Your task to perform on an android device: Open Youtube and go to the subscriptions tab Image 0: 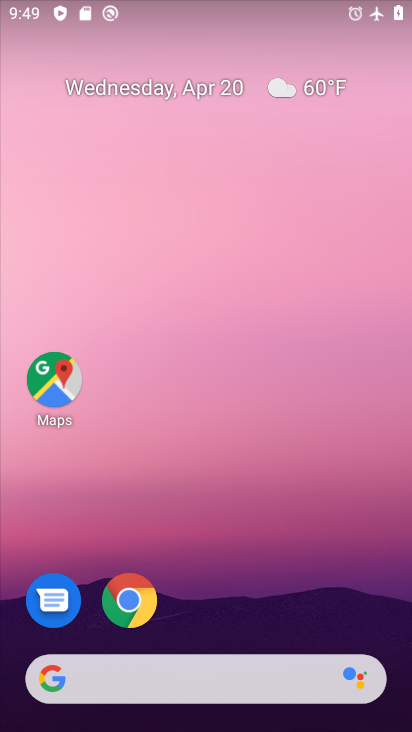
Step 0: drag from (244, 653) to (292, 22)
Your task to perform on an android device: Open Youtube and go to the subscriptions tab Image 1: 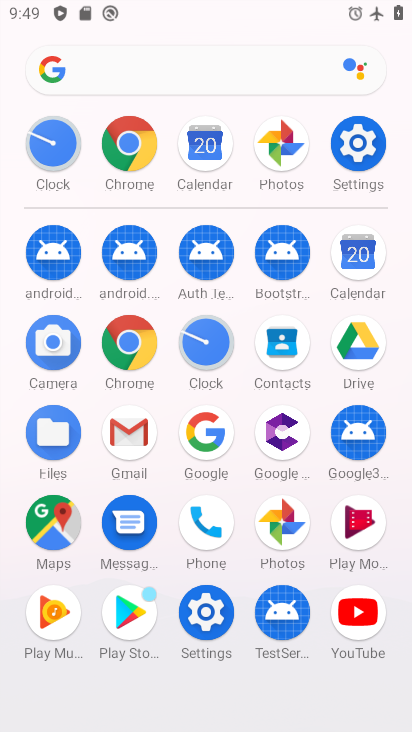
Step 1: click (356, 616)
Your task to perform on an android device: Open Youtube and go to the subscriptions tab Image 2: 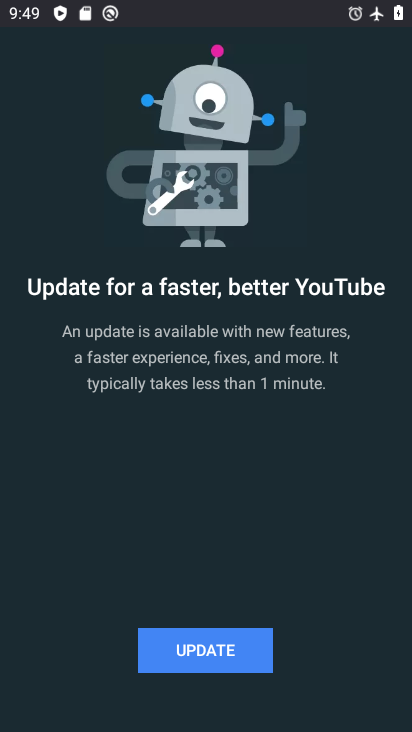
Step 2: click (253, 656)
Your task to perform on an android device: Open Youtube and go to the subscriptions tab Image 3: 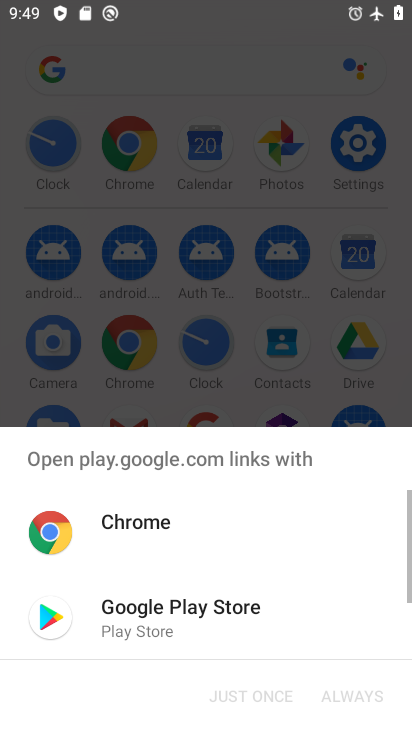
Step 3: click (208, 620)
Your task to perform on an android device: Open Youtube and go to the subscriptions tab Image 4: 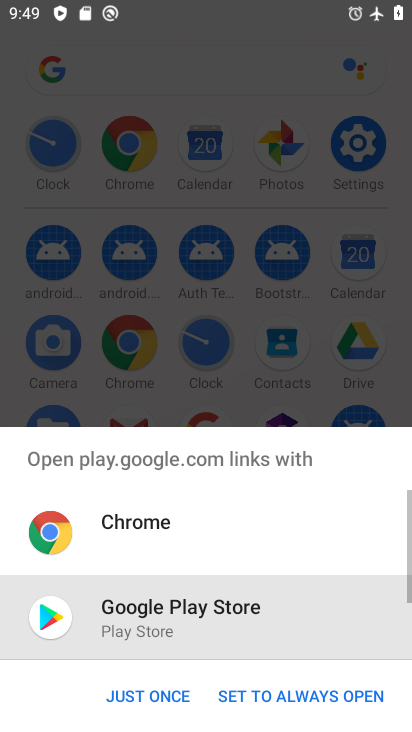
Step 4: click (153, 695)
Your task to perform on an android device: Open Youtube and go to the subscriptions tab Image 5: 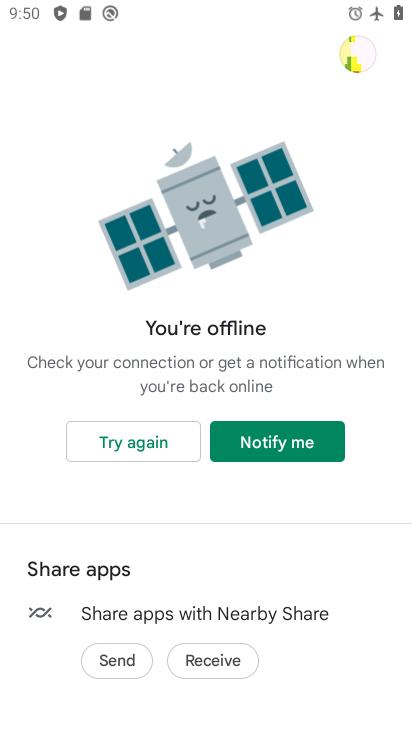
Step 5: click (159, 443)
Your task to perform on an android device: Open Youtube and go to the subscriptions tab Image 6: 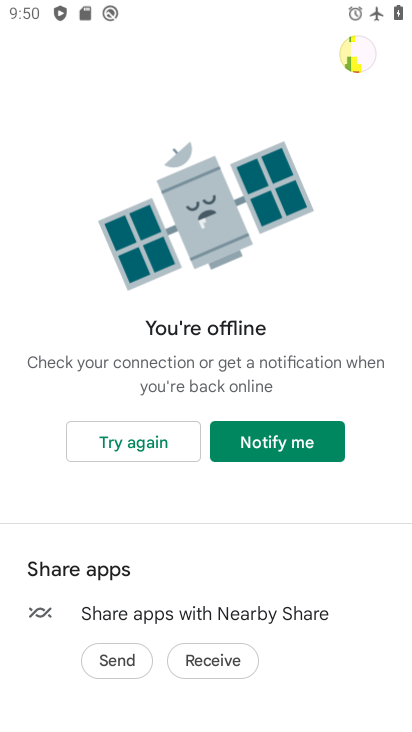
Step 6: task complete